Your task to perform on an android device: turn off notifications in google photos Image 0: 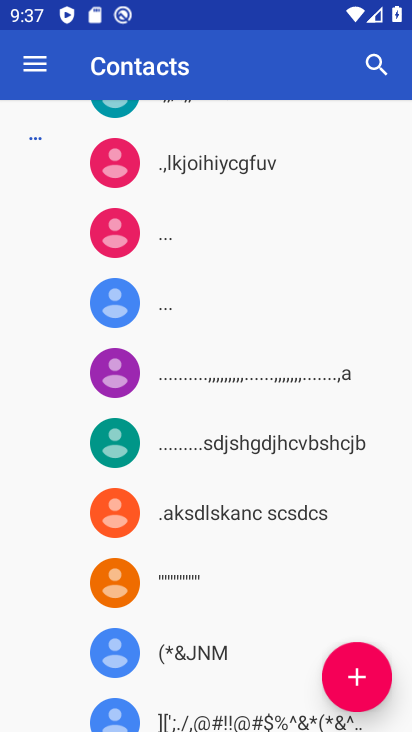
Step 0: press back button
Your task to perform on an android device: turn off notifications in google photos Image 1: 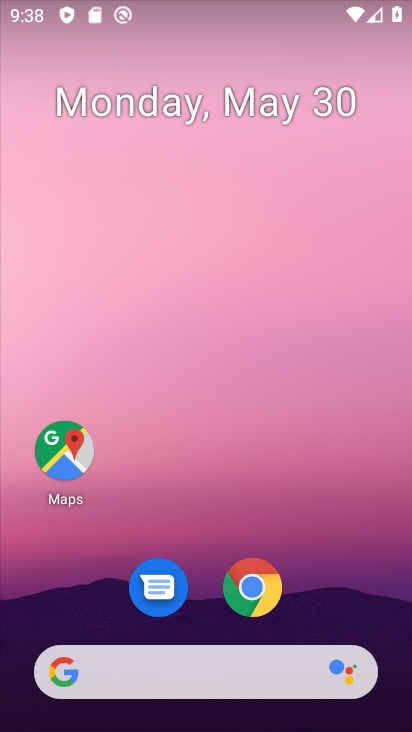
Step 1: drag from (316, 516) to (253, 66)
Your task to perform on an android device: turn off notifications in google photos Image 2: 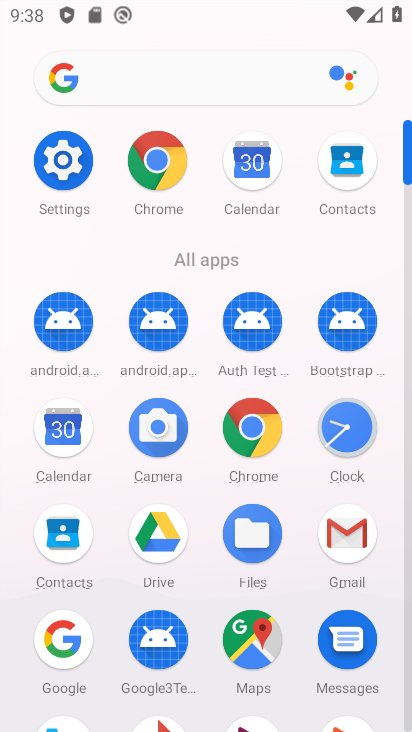
Step 2: drag from (19, 563) to (7, 208)
Your task to perform on an android device: turn off notifications in google photos Image 3: 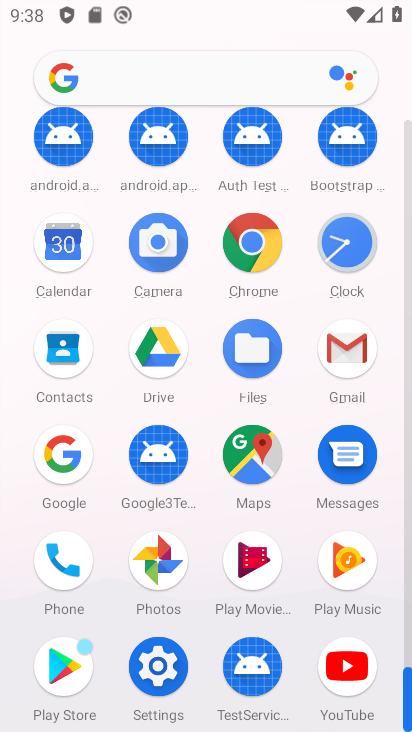
Step 3: click (160, 556)
Your task to perform on an android device: turn off notifications in google photos Image 4: 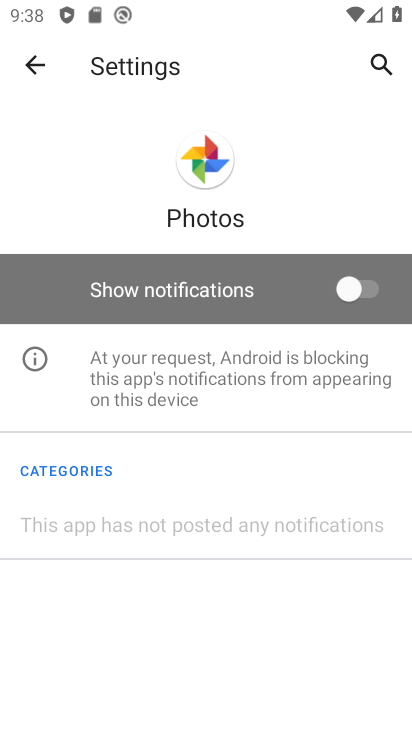
Step 4: task complete